Your task to perform on an android device: turn off smart reply in the gmail app Image 0: 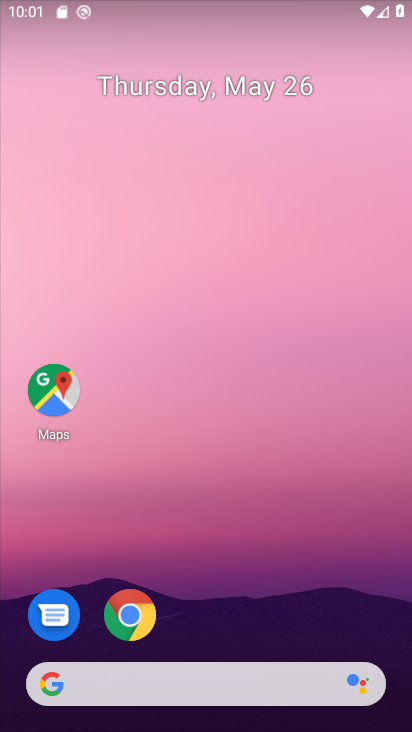
Step 0: drag from (344, 593) to (358, 27)
Your task to perform on an android device: turn off smart reply in the gmail app Image 1: 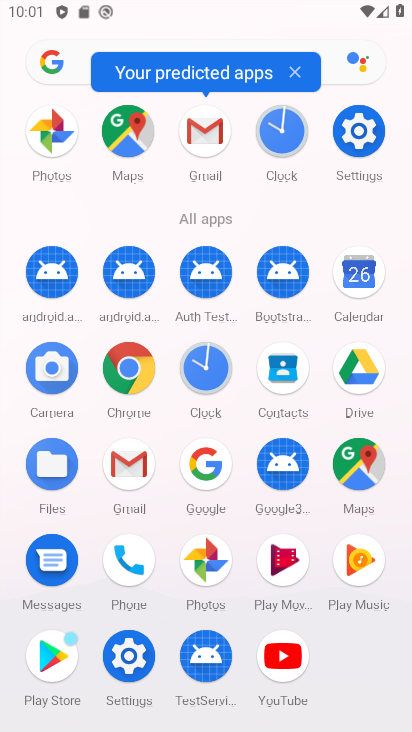
Step 1: click (135, 452)
Your task to perform on an android device: turn off smart reply in the gmail app Image 2: 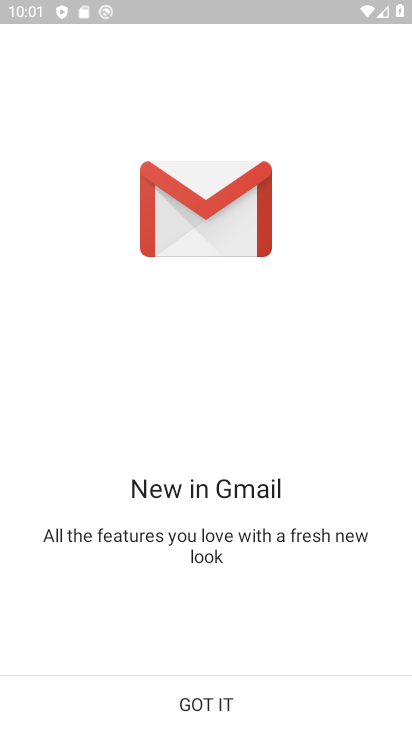
Step 2: click (250, 701)
Your task to perform on an android device: turn off smart reply in the gmail app Image 3: 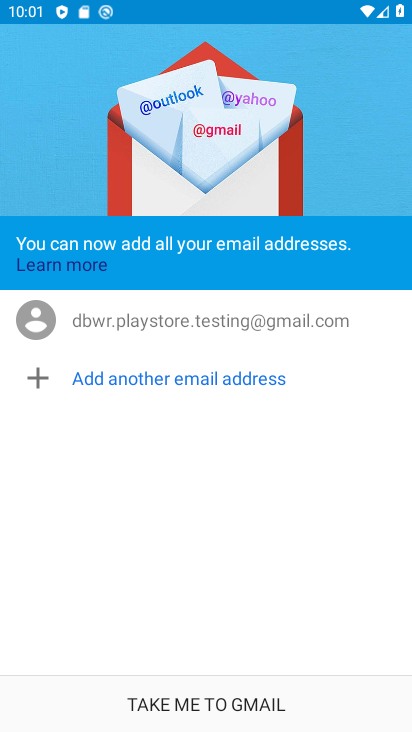
Step 3: click (265, 711)
Your task to perform on an android device: turn off smart reply in the gmail app Image 4: 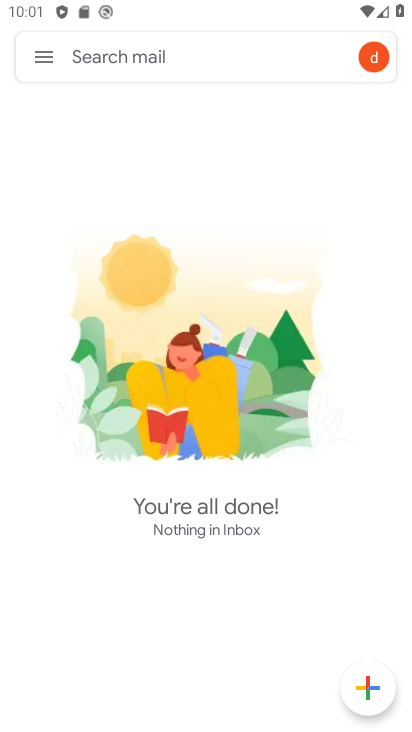
Step 4: click (47, 53)
Your task to perform on an android device: turn off smart reply in the gmail app Image 5: 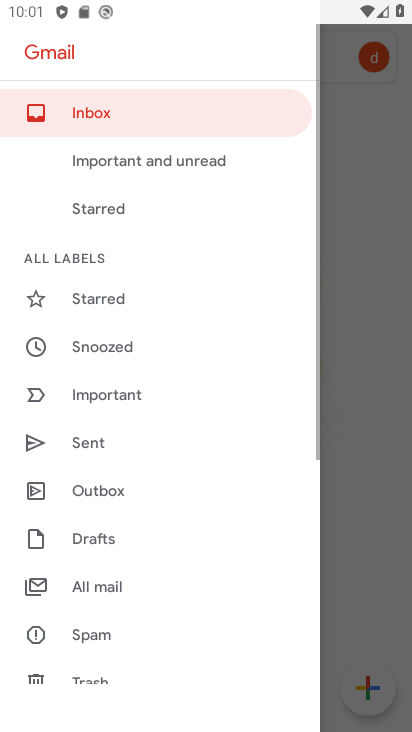
Step 5: drag from (170, 671) to (171, 326)
Your task to perform on an android device: turn off smart reply in the gmail app Image 6: 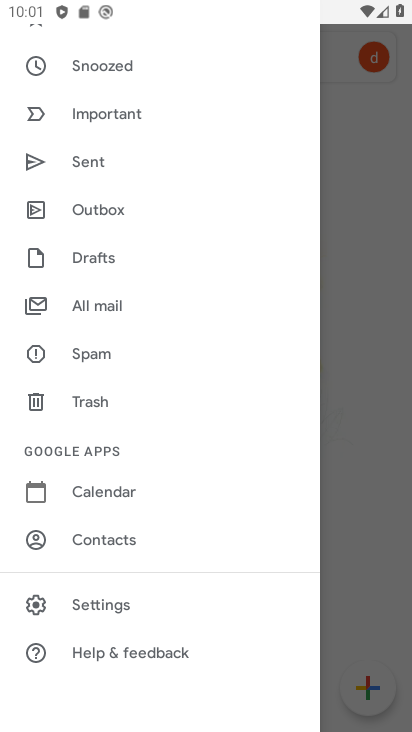
Step 6: click (117, 605)
Your task to perform on an android device: turn off smart reply in the gmail app Image 7: 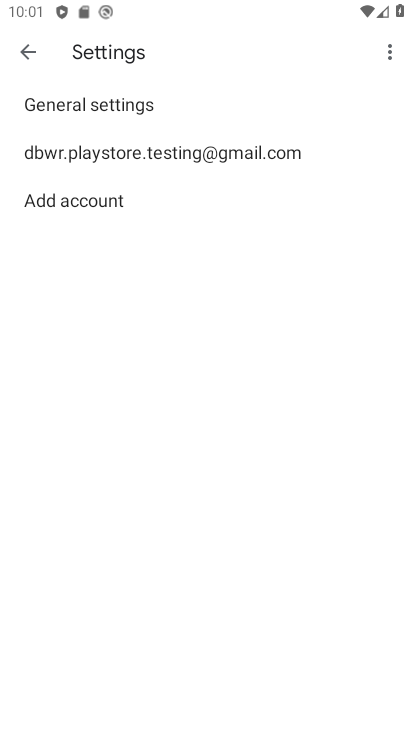
Step 7: click (105, 142)
Your task to perform on an android device: turn off smart reply in the gmail app Image 8: 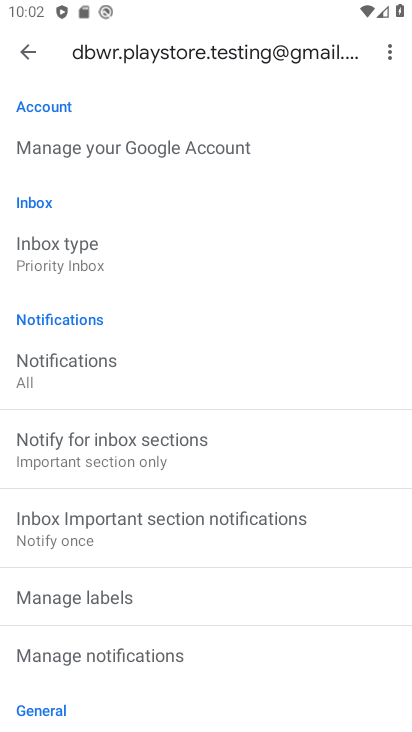
Step 8: click (56, 467)
Your task to perform on an android device: turn off smart reply in the gmail app Image 9: 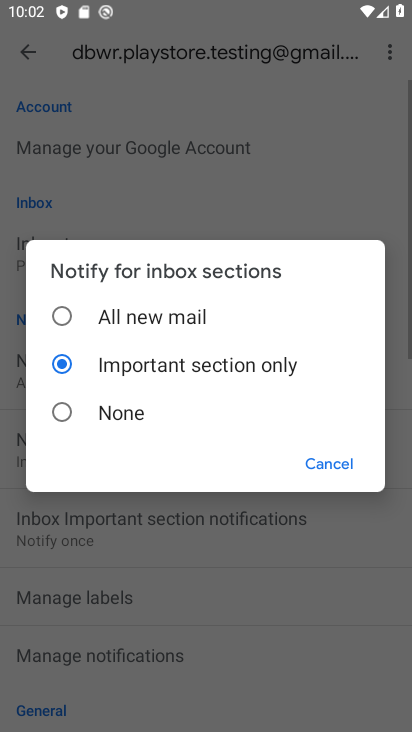
Step 9: click (242, 615)
Your task to perform on an android device: turn off smart reply in the gmail app Image 10: 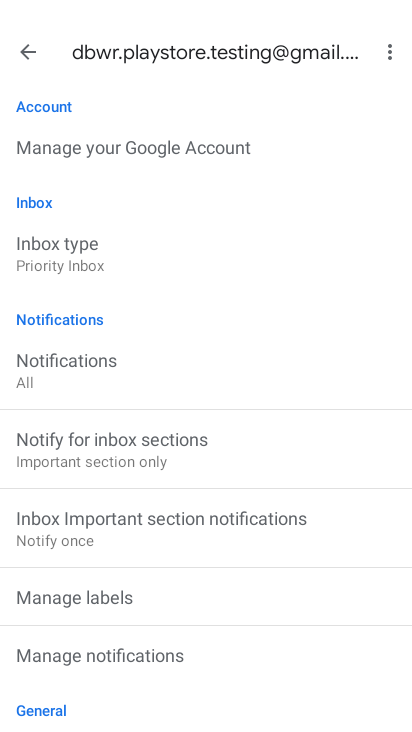
Step 10: drag from (241, 618) to (241, 177)
Your task to perform on an android device: turn off smart reply in the gmail app Image 11: 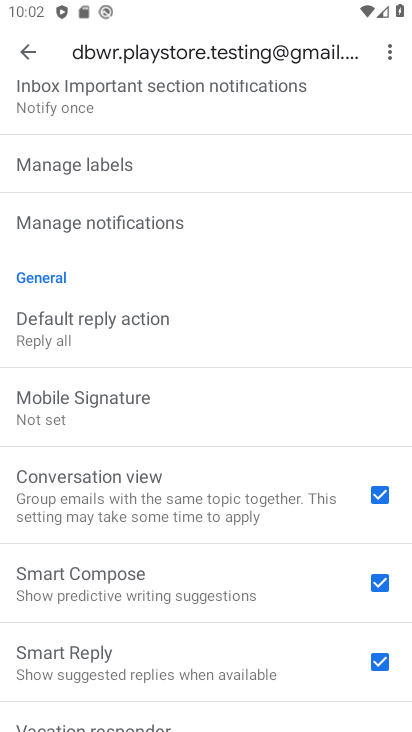
Step 11: click (387, 665)
Your task to perform on an android device: turn off smart reply in the gmail app Image 12: 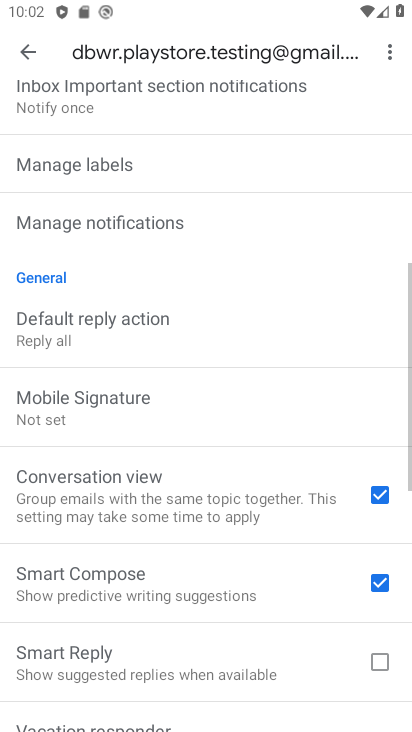
Step 12: task complete